Your task to perform on an android device: Go to wifi settings Image 0: 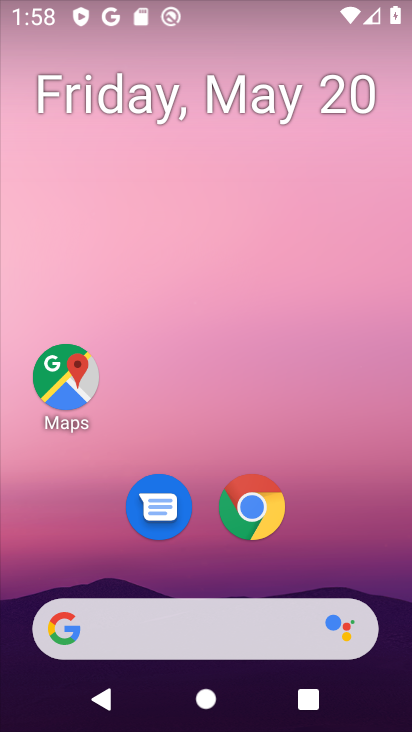
Step 0: drag from (199, 576) to (155, 78)
Your task to perform on an android device: Go to wifi settings Image 1: 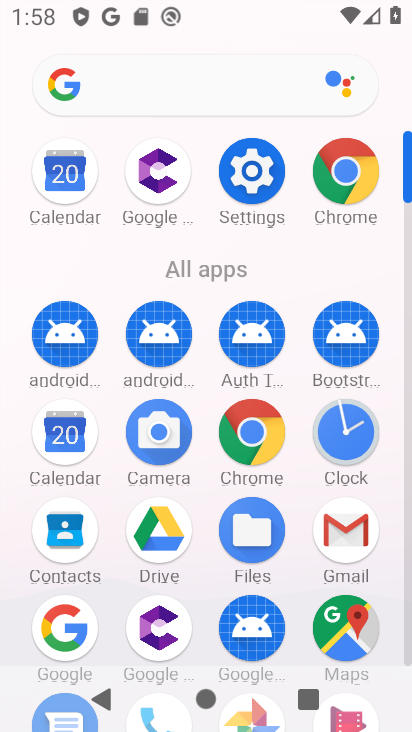
Step 1: click (263, 168)
Your task to perform on an android device: Go to wifi settings Image 2: 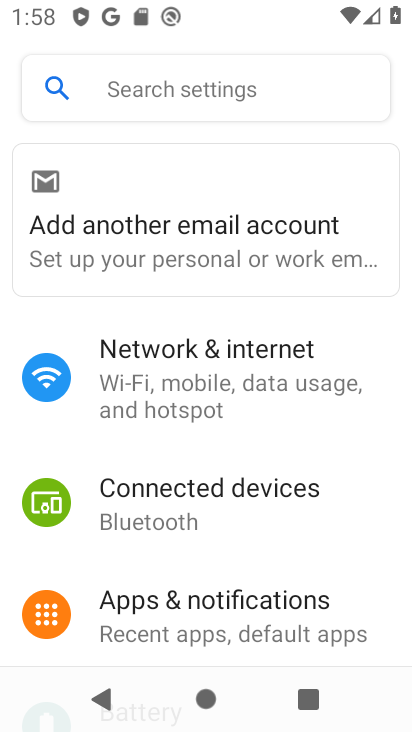
Step 2: click (143, 360)
Your task to perform on an android device: Go to wifi settings Image 3: 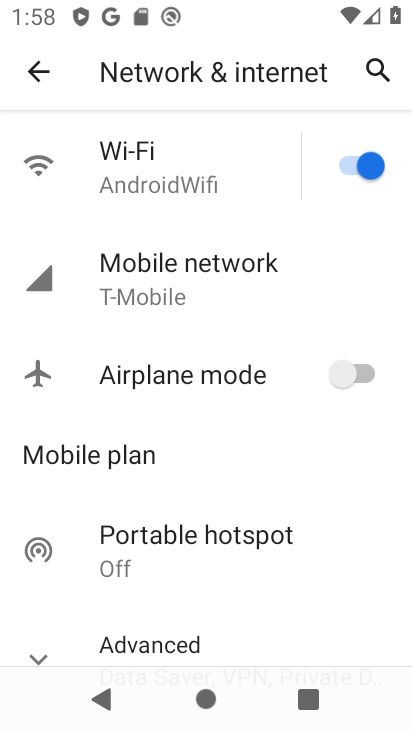
Step 3: click (102, 167)
Your task to perform on an android device: Go to wifi settings Image 4: 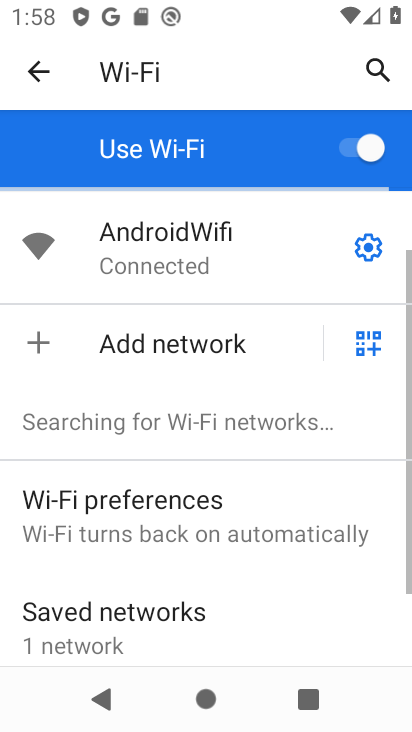
Step 4: task complete